Your task to perform on an android device: add a contact Image 0: 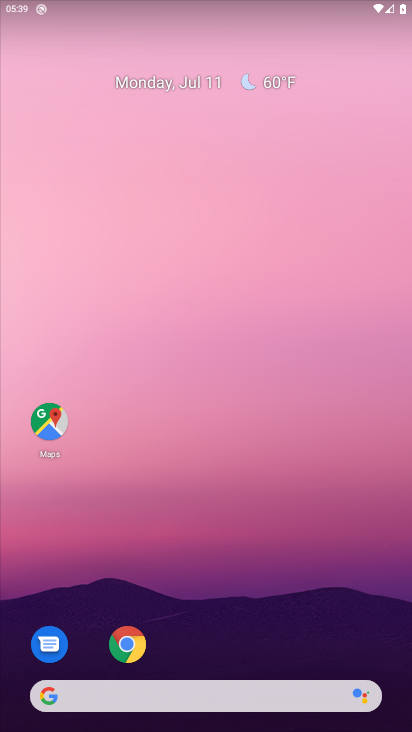
Step 0: drag from (272, 606) to (298, 311)
Your task to perform on an android device: add a contact Image 1: 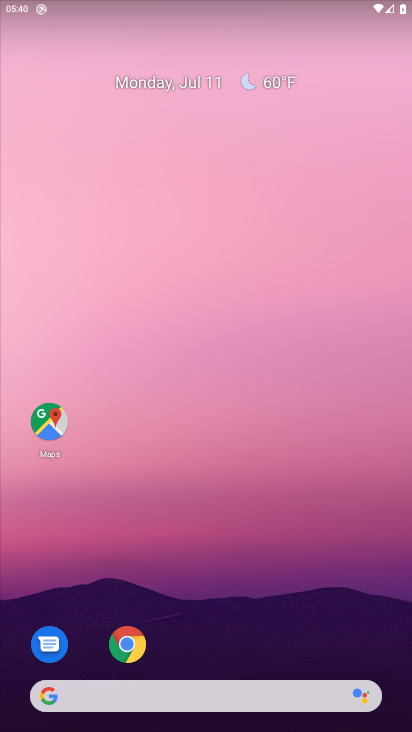
Step 1: drag from (299, 680) to (324, 288)
Your task to perform on an android device: add a contact Image 2: 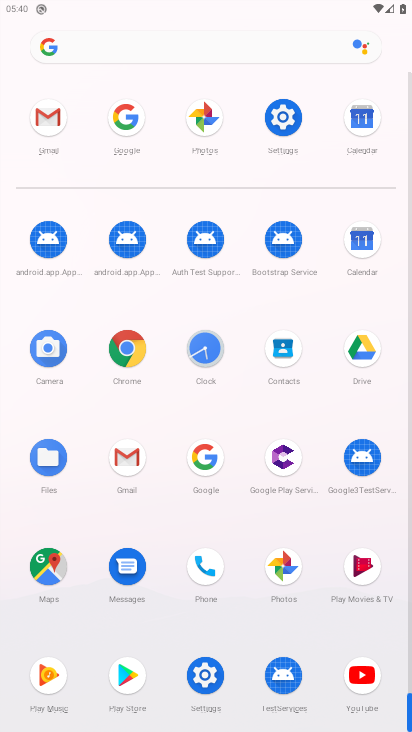
Step 2: click (283, 355)
Your task to perform on an android device: add a contact Image 3: 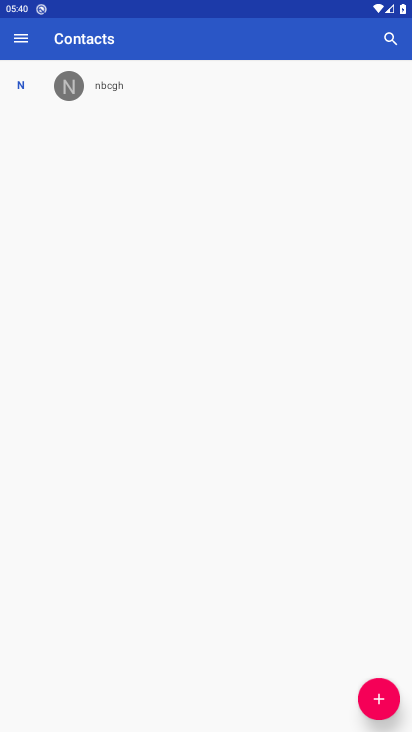
Step 3: click (377, 703)
Your task to perform on an android device: add a contact Image 4: 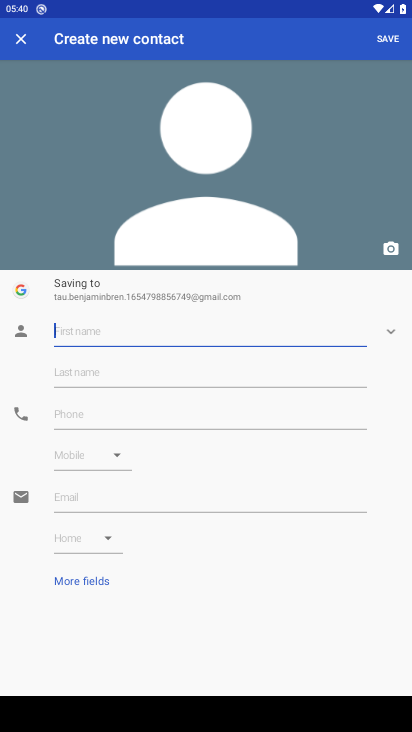
Step 4: type "priya"
Your task to perform on an android device: add a contact Image 5: 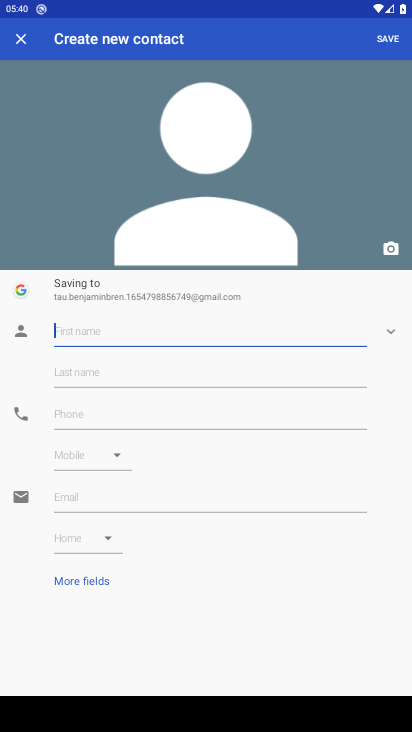
Step 5: click (82, 378)
Your task to perform on an android device: add a contact Image 6: 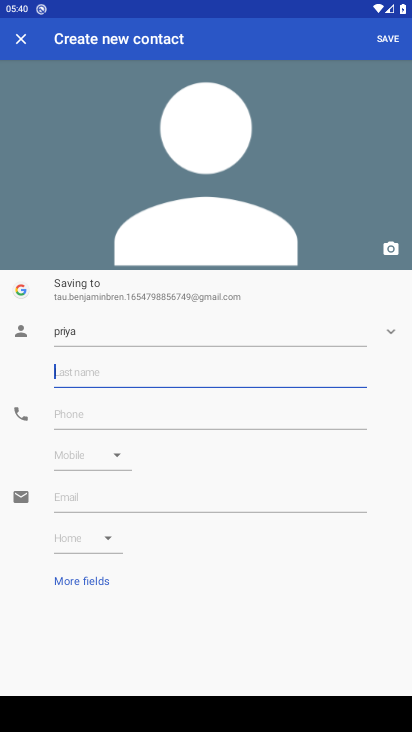
Step 6: type "jha"
Your task to perform on an android device: add a contact Image 7: 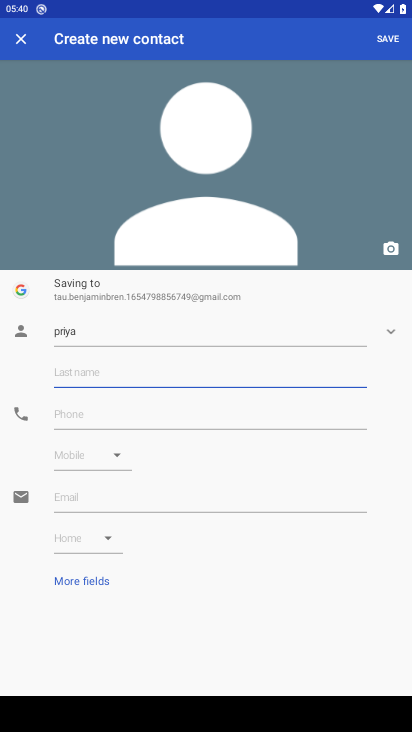
Step 7: click (86, 424)
Your task to perform on an android device: add a contact Image 8: 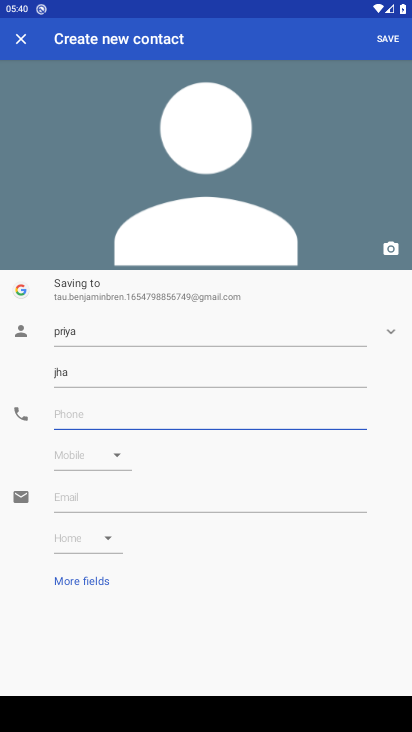
Step 8: type "7675747098"
Your task to perform on an android device: add a contact Image 9: 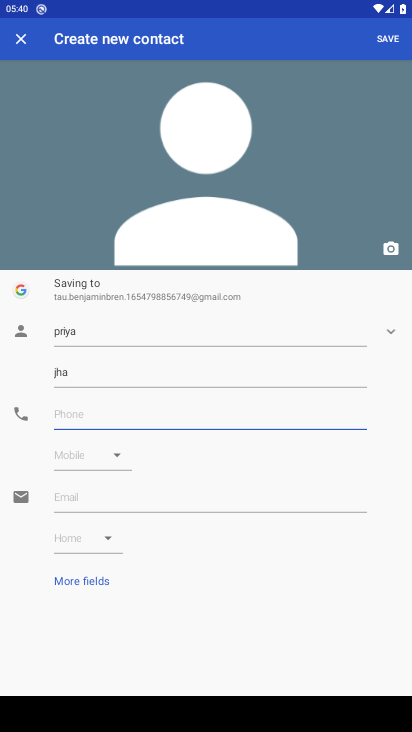
Step 9: click (87, 469)
Your task to perform on an android device: add a contact Image 10: 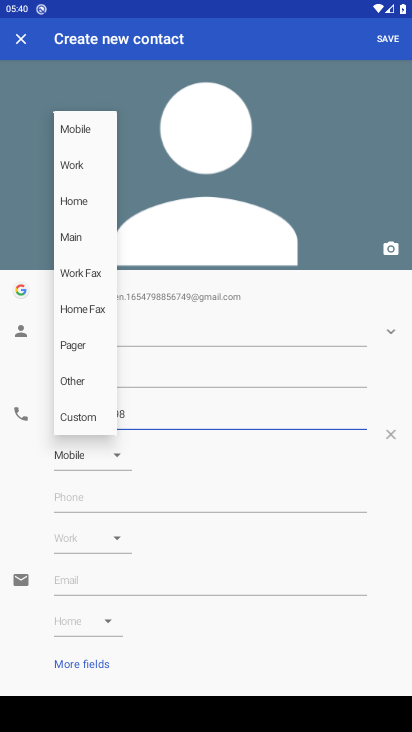
Step 10: click (80, 134)
Your task to perform on an android device: add a contact Image 11: 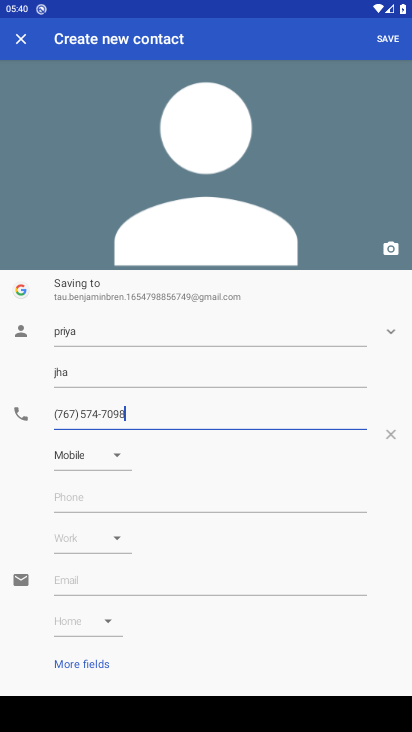
Step 11: click (384, 39)
Your task to perform on an android device: add a contact Image 12: 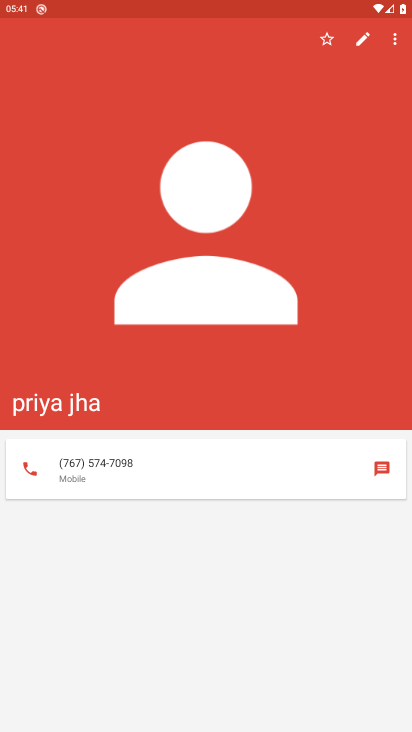
Step 12: task complete